Your task to perform on an android device: turn on priority inbox in the gmail app Image 0: 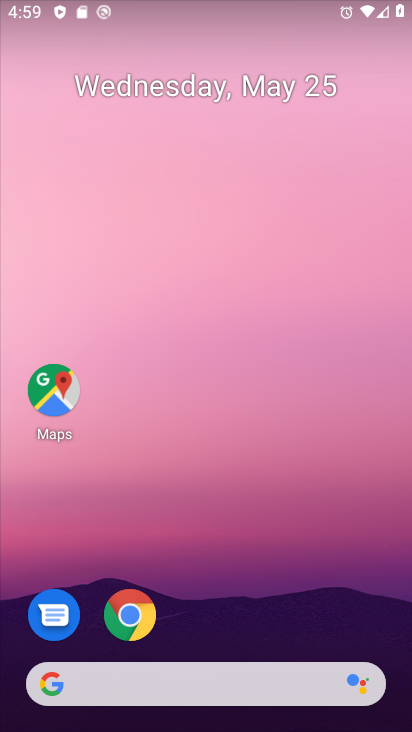
Step 0: press home button
Your task to perform on an android device: turn on priority inbox in the gmail app Image 1: 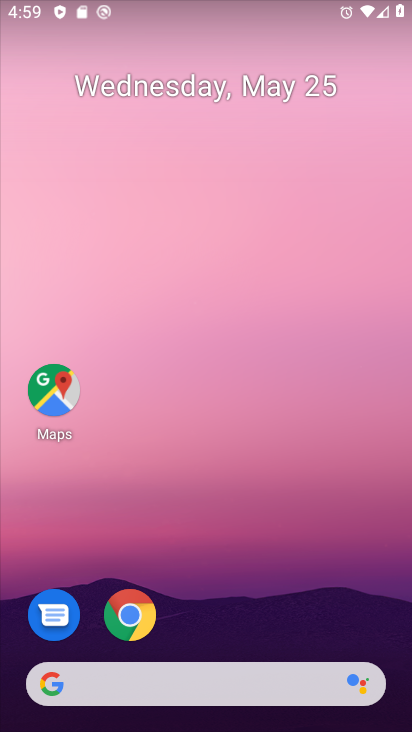
Step 1: click (260, 599)
Your task to perform on an android device: turn on priority inbox in the gmail app Image 2: 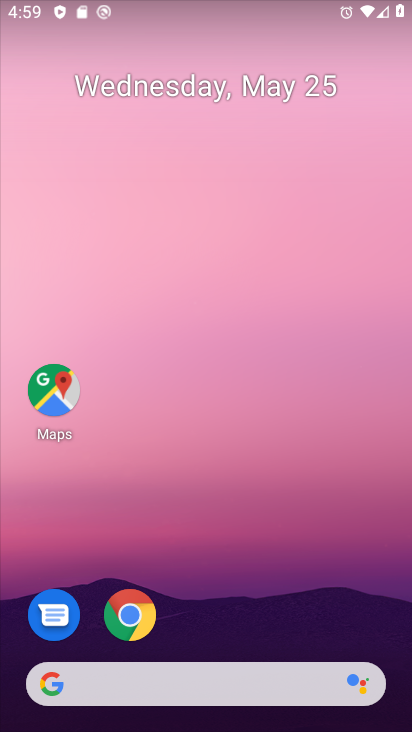
Step 2: drag from (230, 425) to (233, 52)
Your task to perform on an android device: turn on priority inbox in the gmail app Image 3: 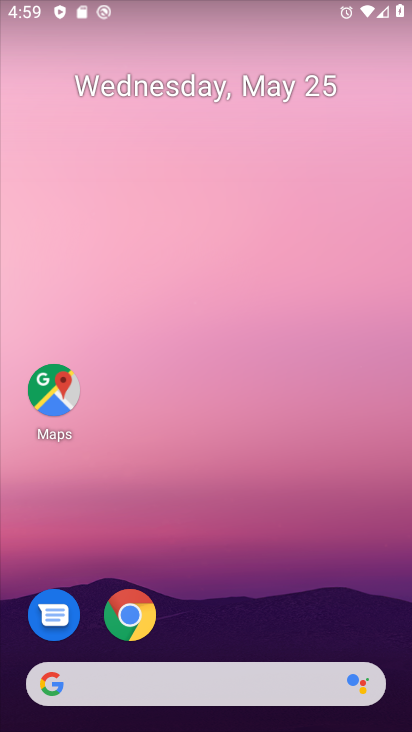
Step 3: drag from (396, 542) to (218, 86)
Your task to perform on an android device: turn on priority inbox in the gmail app Image 4: 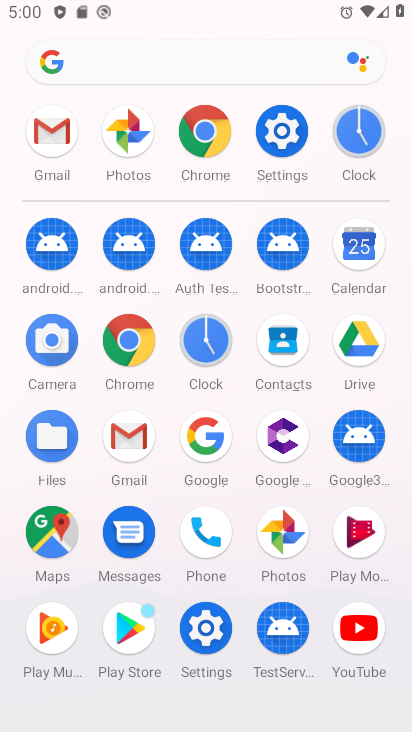
Step 4: click (138, 448)
Your task to perform on an android device: turn on priority inbox in the gmail app Image 5: 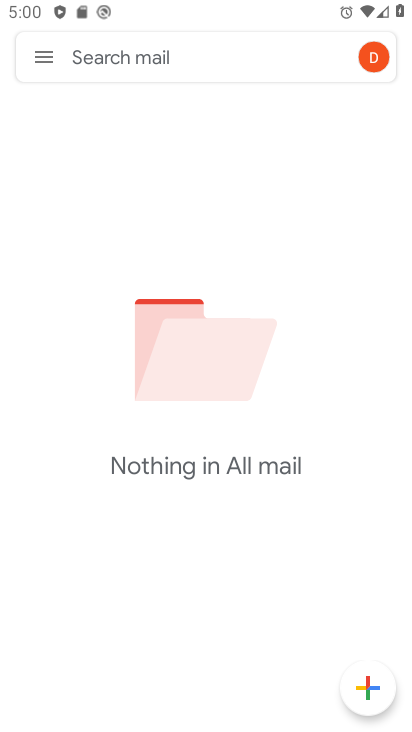
Step 5: click (32, 69)
Your task to perform on an android device: turn on priority inbox in the gmail app Image 6: 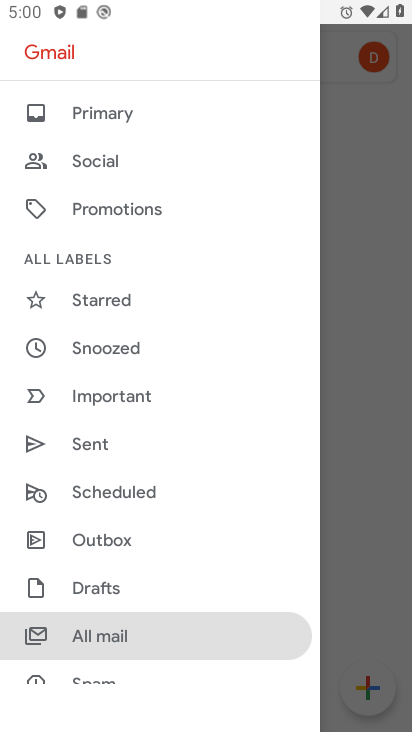
Step 6: drag from (158, 495) to (208, 297)
Your task to perform on an android device: turn on priority inbox in the gmail app Image 7: 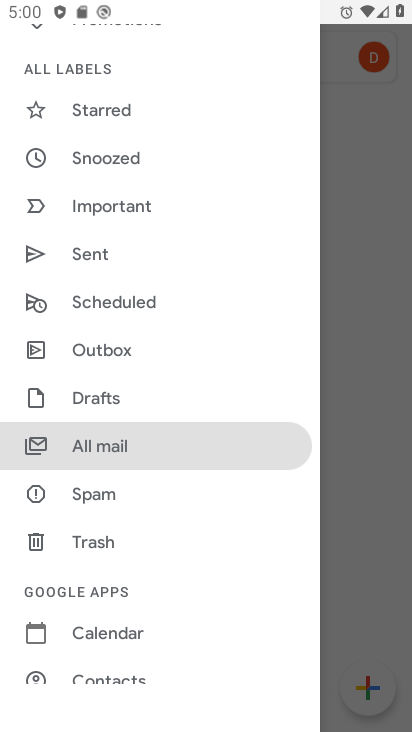
Step 7: drag from (163, 655) to (214, 373)
Your task to perform on an android device: turn on priority inbox in the gmail app Image 8: 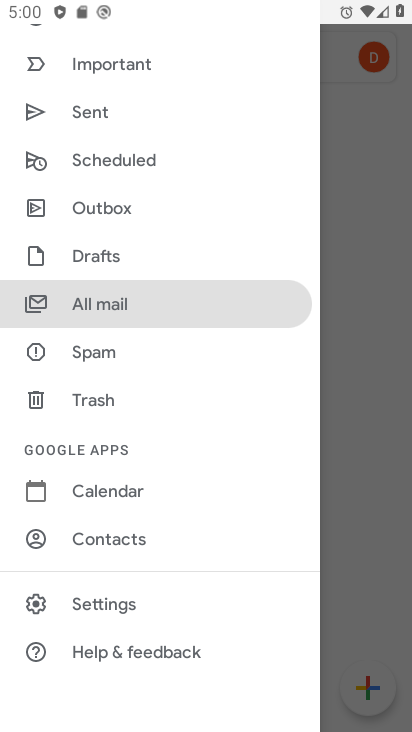
Step 8: click (178, 581)
Your task to perform on an android device: turn on priority inbox in the gmail app Image 9: 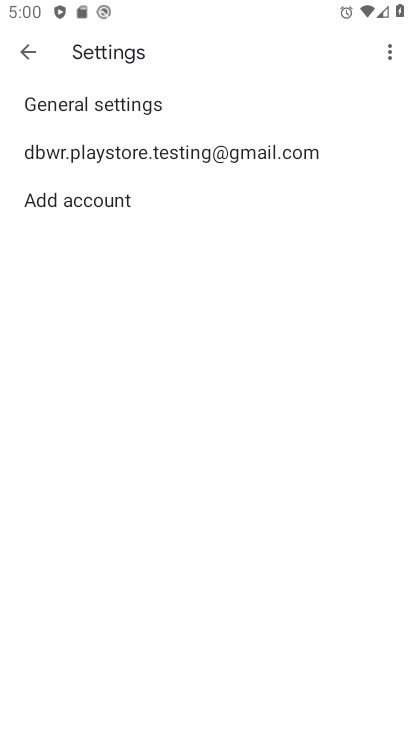
Step 9: click (130, 159)
Your task to perform on an android device: turn on priority inbox in the gmail app Image 10: 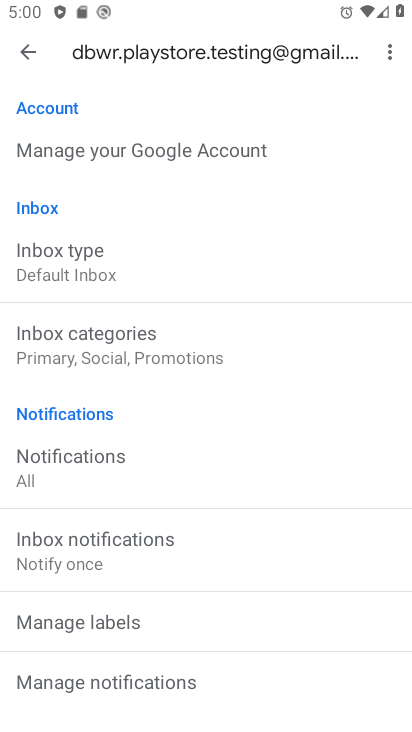
Step 10: click (117, 279)
Your task to perform on an android device: turn on priority inbox in the gmail app Image 11: 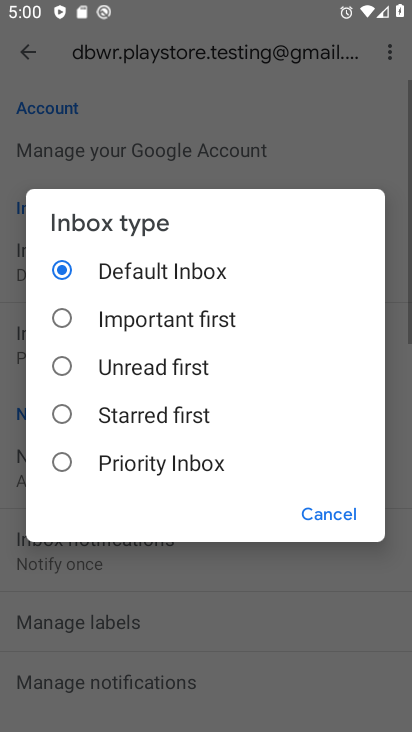
Step 11: click (99, 450)
Your task to perform on an android device: turn on priority inbox in the gmail app Image 12: 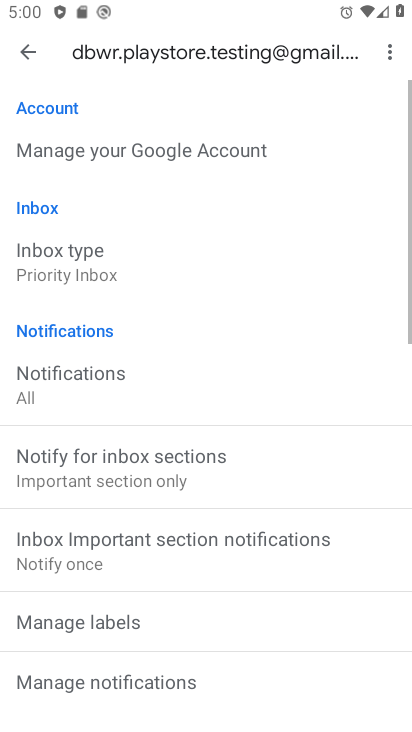
Step 12: task complete